Your task to perform on an android device: set the stopwatch Image 0: 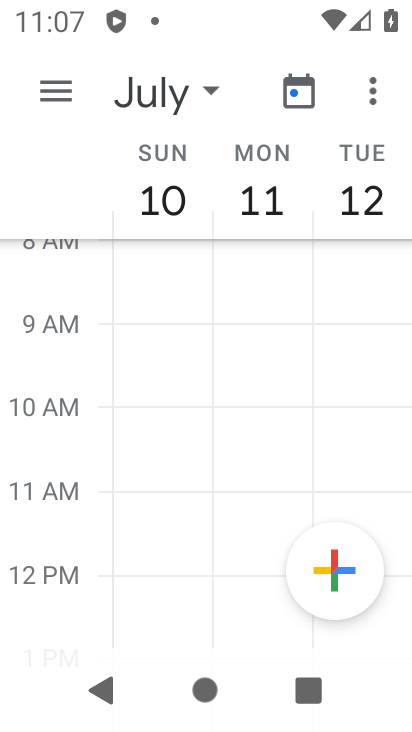
Step 0: press home button
Your task to perform on an android device: set the stopwatch Image 1: 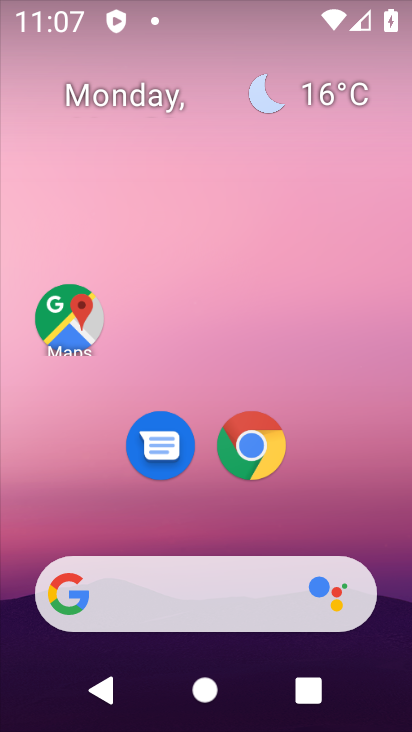
Step 1: drag from (219, 413) to (391, 17)
Your task to perform on an android device: set the stopwatch Image 2: 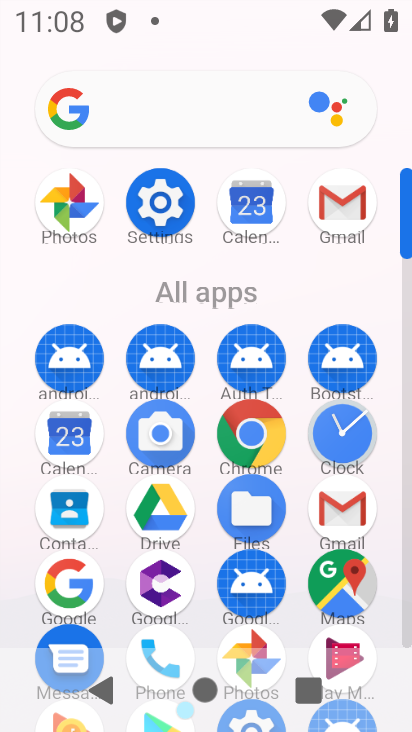
Step 2: click (347, 448)
Your task to perform on an android device: set the stopwatch Image 3: 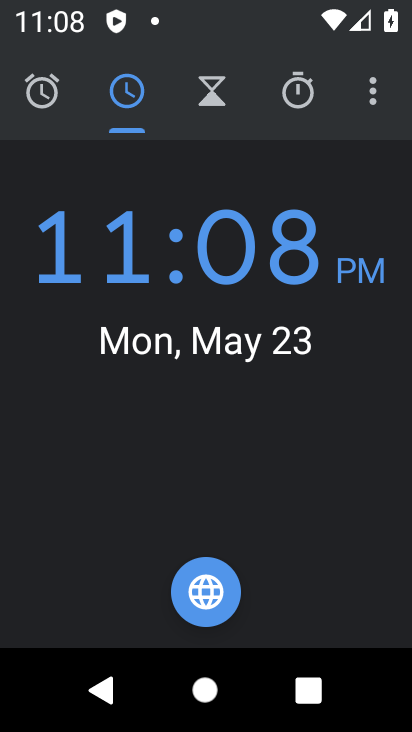
Step 3: click (312, 101)
Your task to perform on an android device: set the stopwatch Image 4: 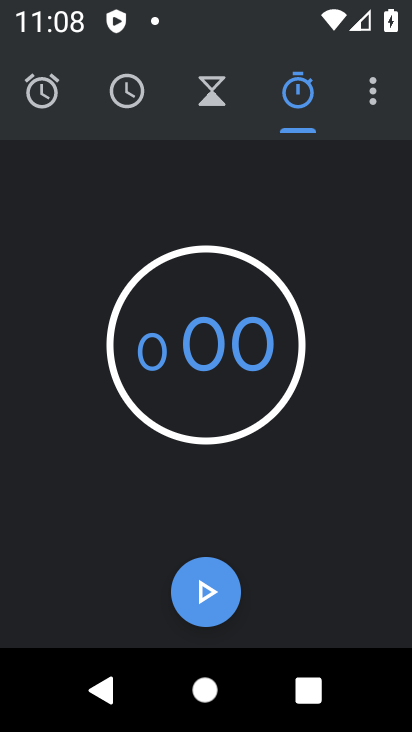
Step 4: click (219, 607)
Your task to perform on an android device: set the stopwatch Image 5: 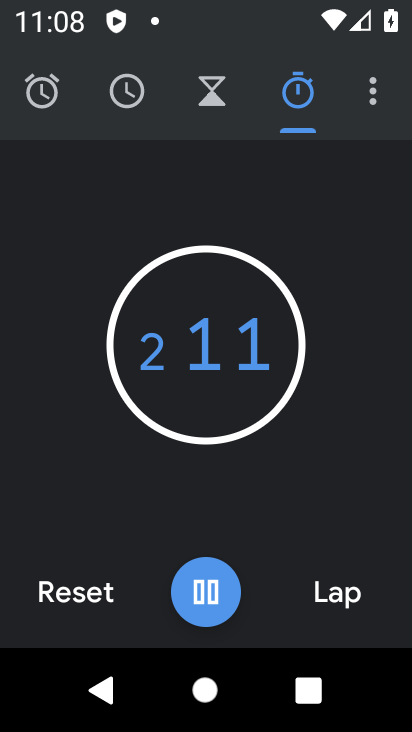
Step 5: task complete